Your task to perform on an android device: toggle notification dots Image 0: 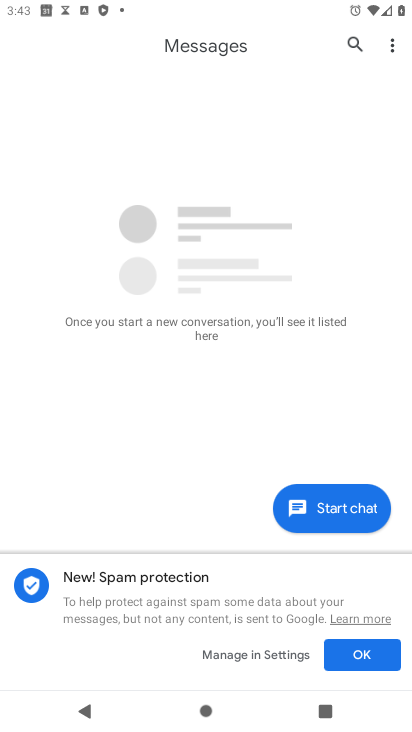
Step 0: press home button
Your task to perform on an android device: toggle notification dots Image 1: 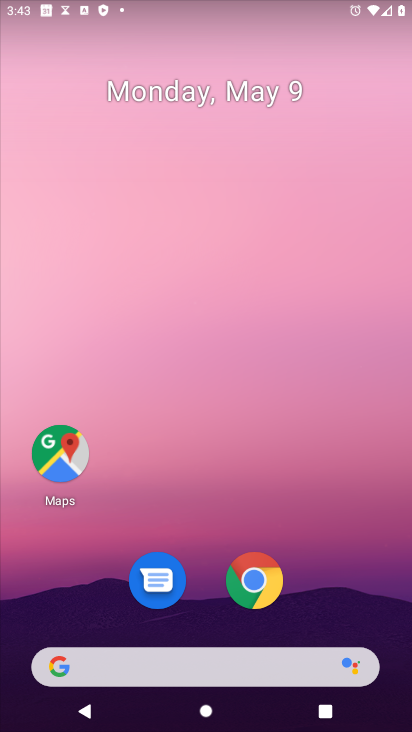
Step 1: drag from (349, 544) to (290, 39)
Your task to perform on an android device: toggle notification dots Image 2: 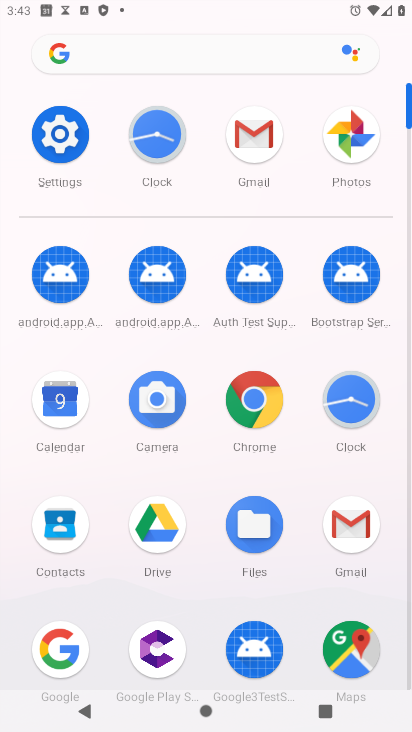
Step 2: click (68, 131)
Your task to perform on an android device: toggle notification dots Image 3: 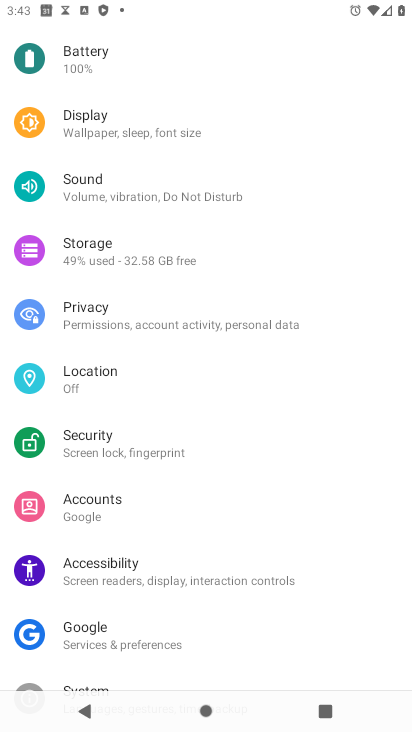
Step 3: drag from (204, 214) to (161, 625)
Your task to perform on an android device: toggle notification dots Image 4: 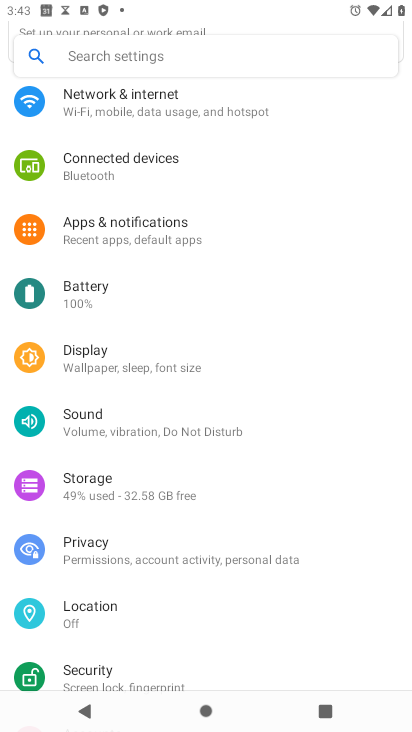
Step 4: click (176, 231)
Your task to perform on an android device: toggle notification dots Image 5: 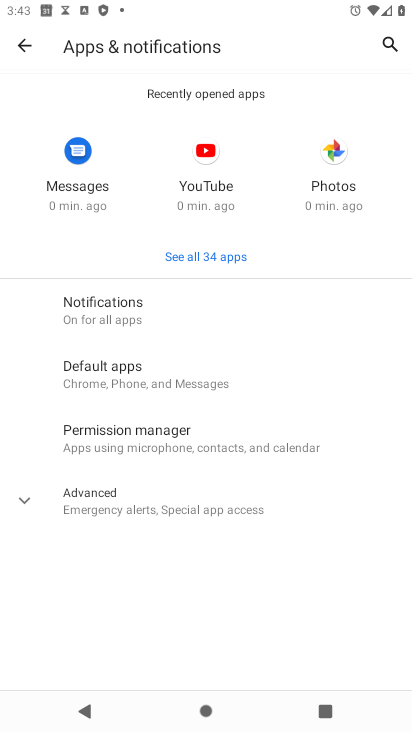
Step 5: click (162, 307)
Your task to perform on an android device: toggle notification dots Image 6: 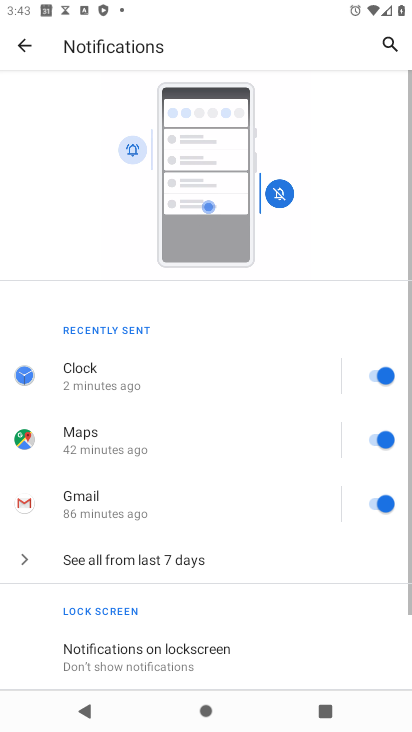
Step 6: drag from (171, 610) to (222, 211)
Your task to perform on an android device: toggle notification dots Image 7: 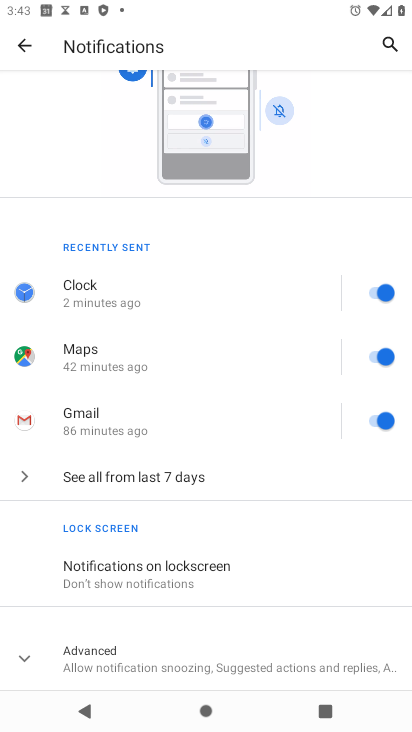
Step 7: click (140, 673)
Your task to perform on an android device: toggle notification dots Image 8: 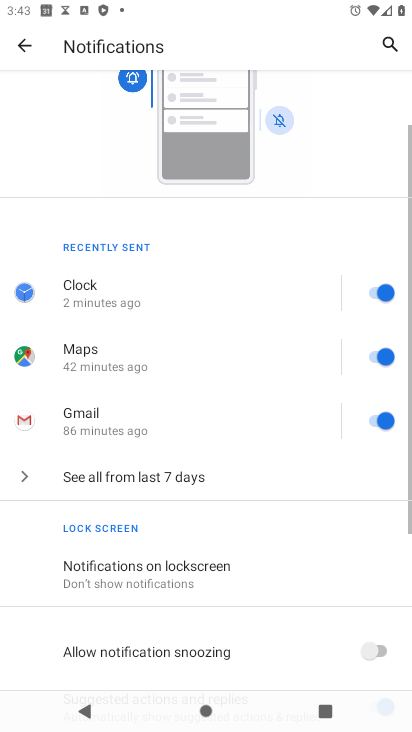
Step 8: drag from (183, 634) to (222, 282)
Your task to perform on an android device: toggle notification dots Image 9: 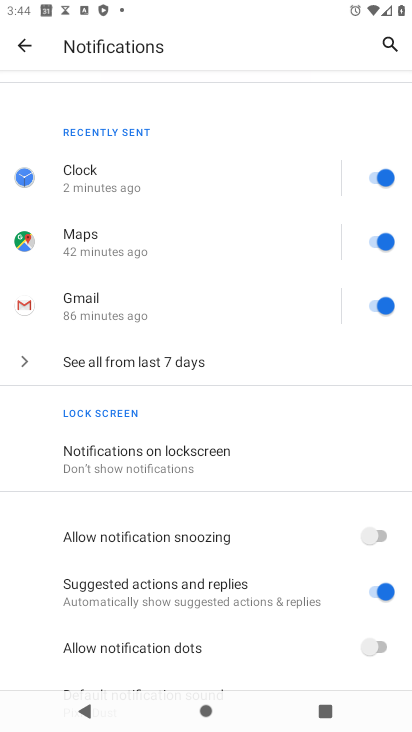
Step 9: drag from (254, 622) to (260, 314)
Your task to perform on an android device: toggle notification dots Image 10: 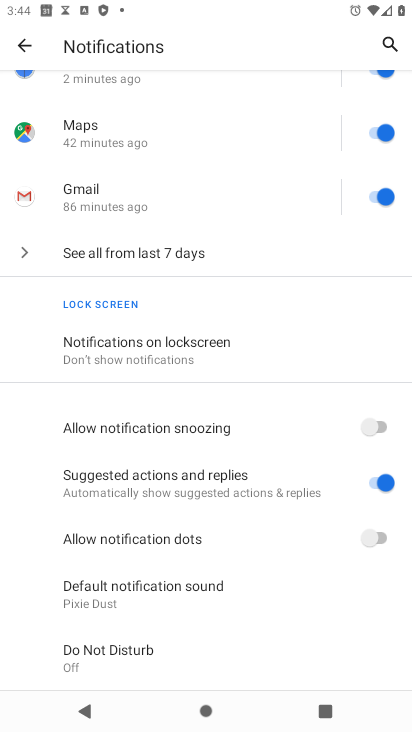
Step 10: click (369, 524)
Your task to perform on an android device: toggle notification dots Image 11: 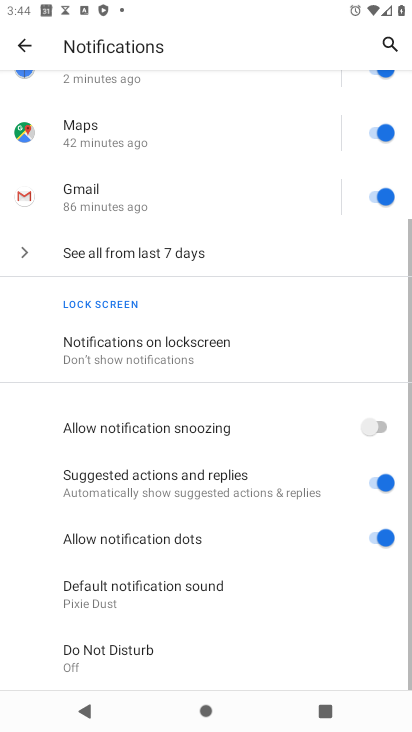
Step 11: task complete